Your task to perform on an android device: snooze an email in the gmail app Image 0: 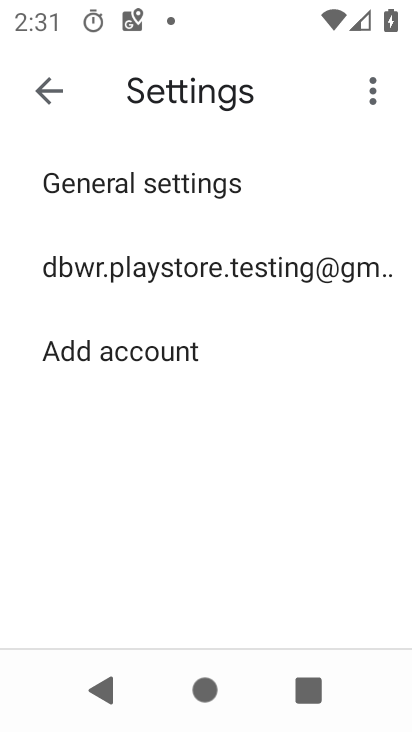
Step 0: drag from (190, 552) to (231, 53)
Your task to perform on an android device: snooze an email in the gmail app Image 1: 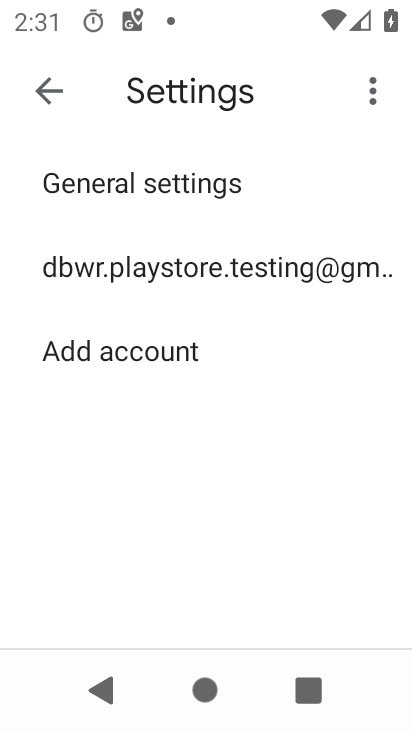
Step 1: press back button
Your task to perform on an android device: snooze an email in the gmail app Image 2: 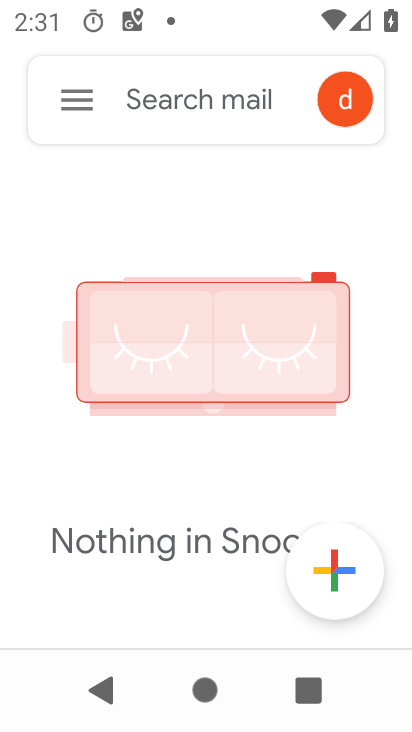
Step 2: click (80, 95)
Your task to perform on an android device: snooze an email in the gmail app Image 3: 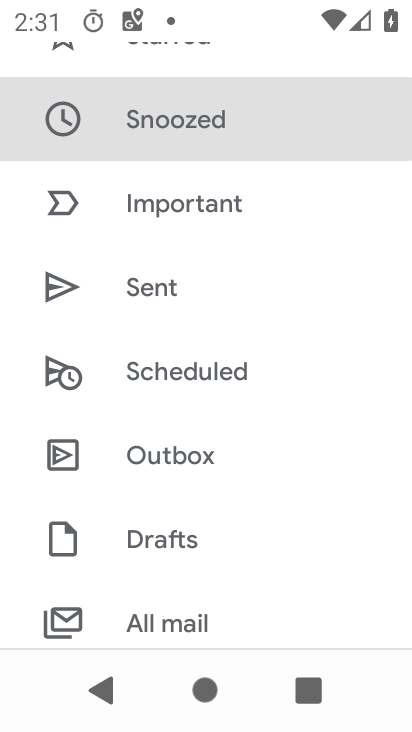
Step 3: click (182, 617)
Your task to perform on an android device: snooze an email in the gmail app Image 4: 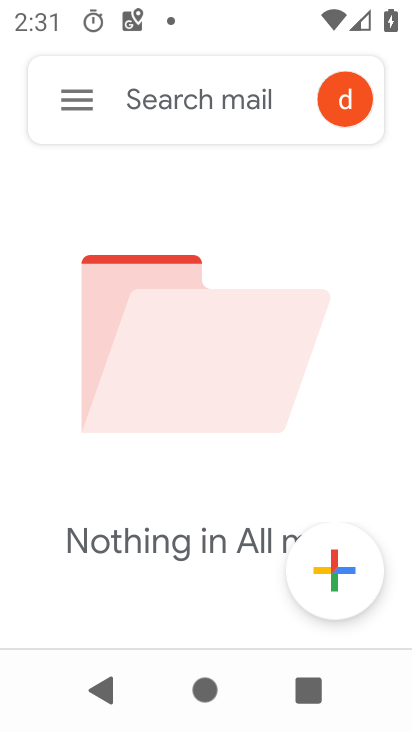
Step 4: task complete